Your task to perform on an android device: Search for razer blackwidow on bestbuy.com, select the first entry, add it to the cart, then select checkout. Image 0: 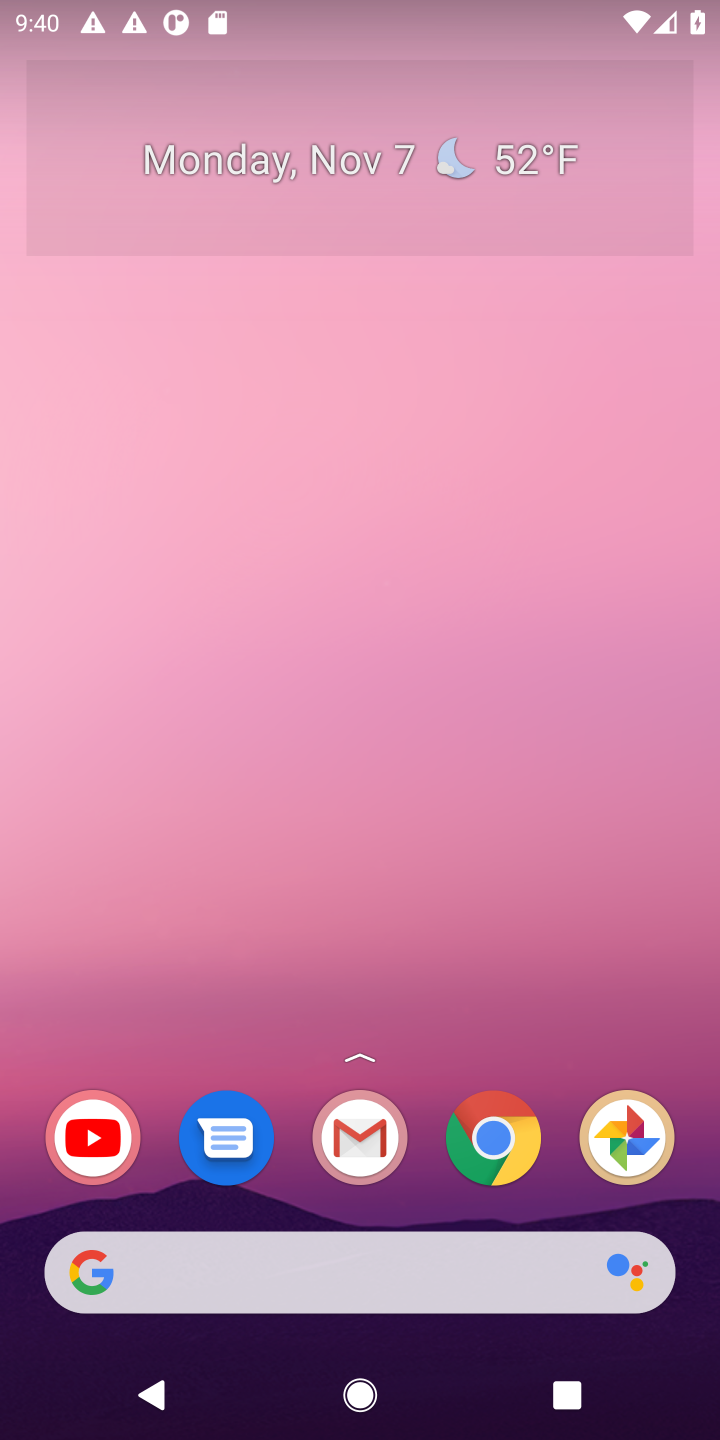
Step 0: click (497, 1139)
Your task to perform on an android device: Search for razer blackwidow on bestbuy.com, select the first entry, add it to the cart, then select checkout. Image 1: 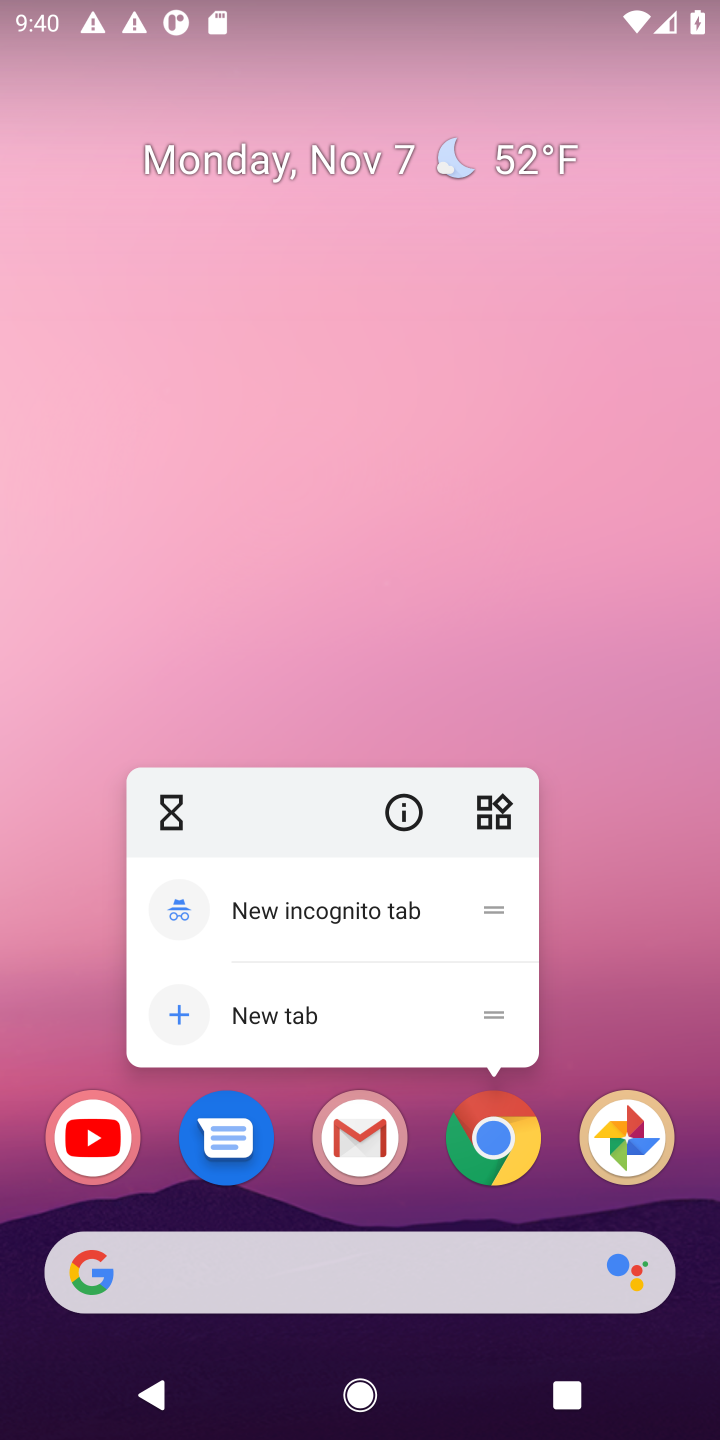
Step 1: click (494, 1127)
Your task to perform on an android device: Search for razer blackwidow on bestbuy.com, select the first entry, add it to the cart, then select checkout. Image 2: 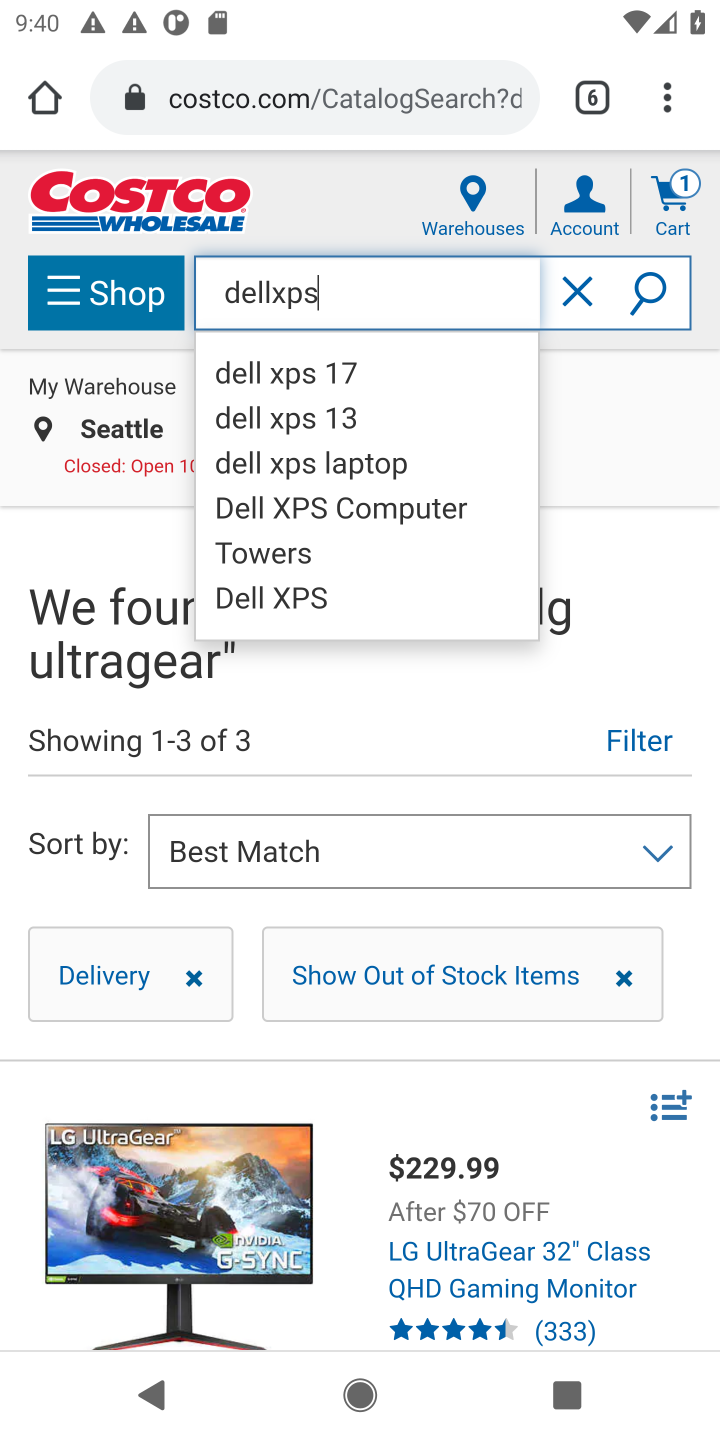
Step 2: click (594, 99)
Your task to perform on an android device: Search for razer blackwidow on bestbuy.com, select the first entry, add it to the cart, then select checkout. Image 3: 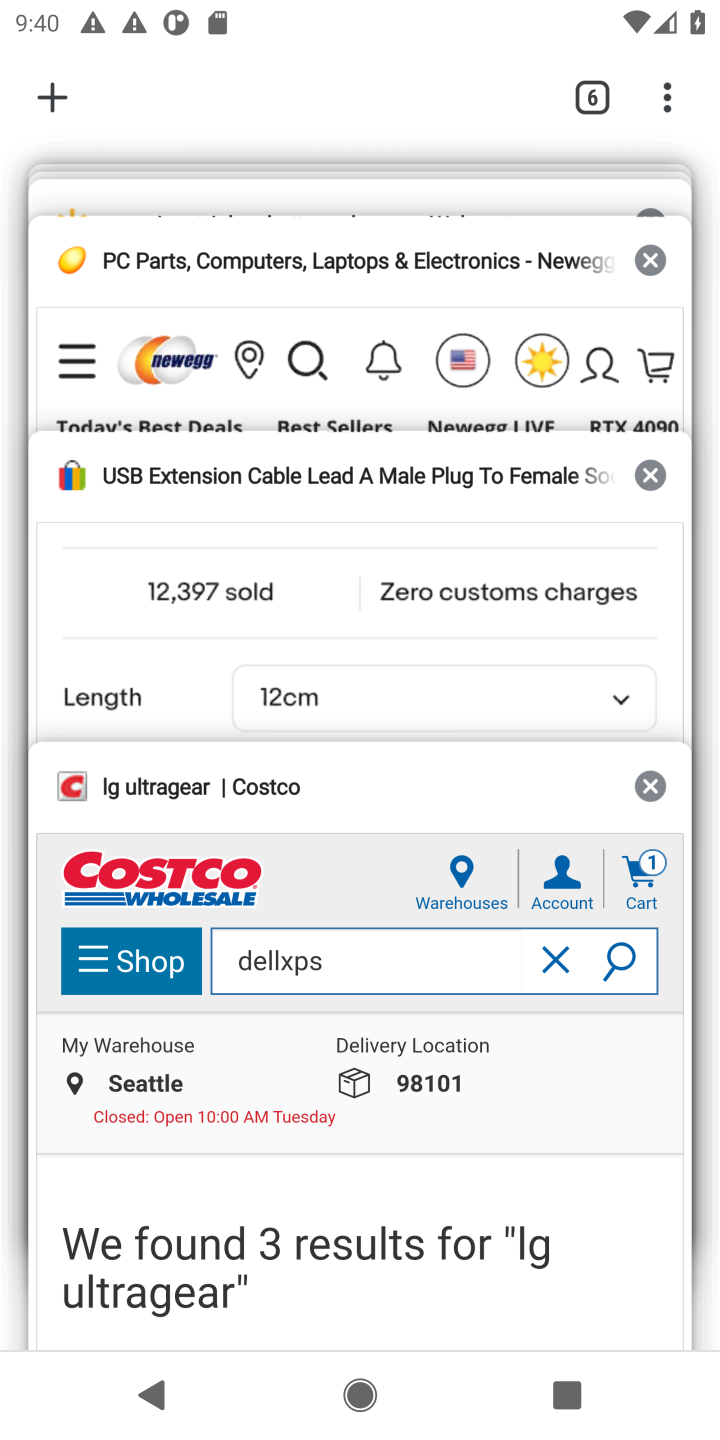
Step 3: click (327, 317)
Your task to perform on an android device: Search for razer blackwidow on bestbuy.com, select the first entry, add it to the cart, then select checkout. Image 4: 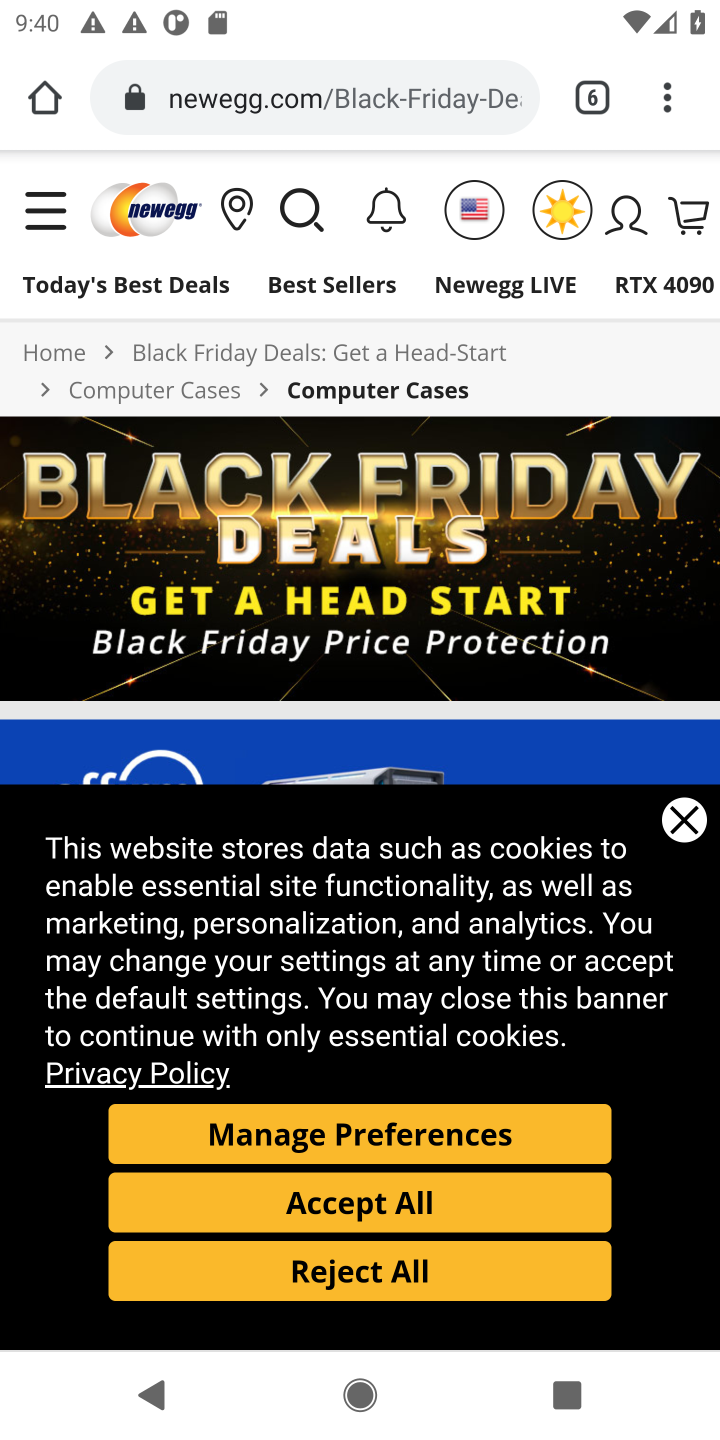
Step 4: click (589, 96)
Your task to perform on an android device: Search for razer blackwidow on bestbuy.com, select the first entry, add it to the cart, then select checkout. Image 5: 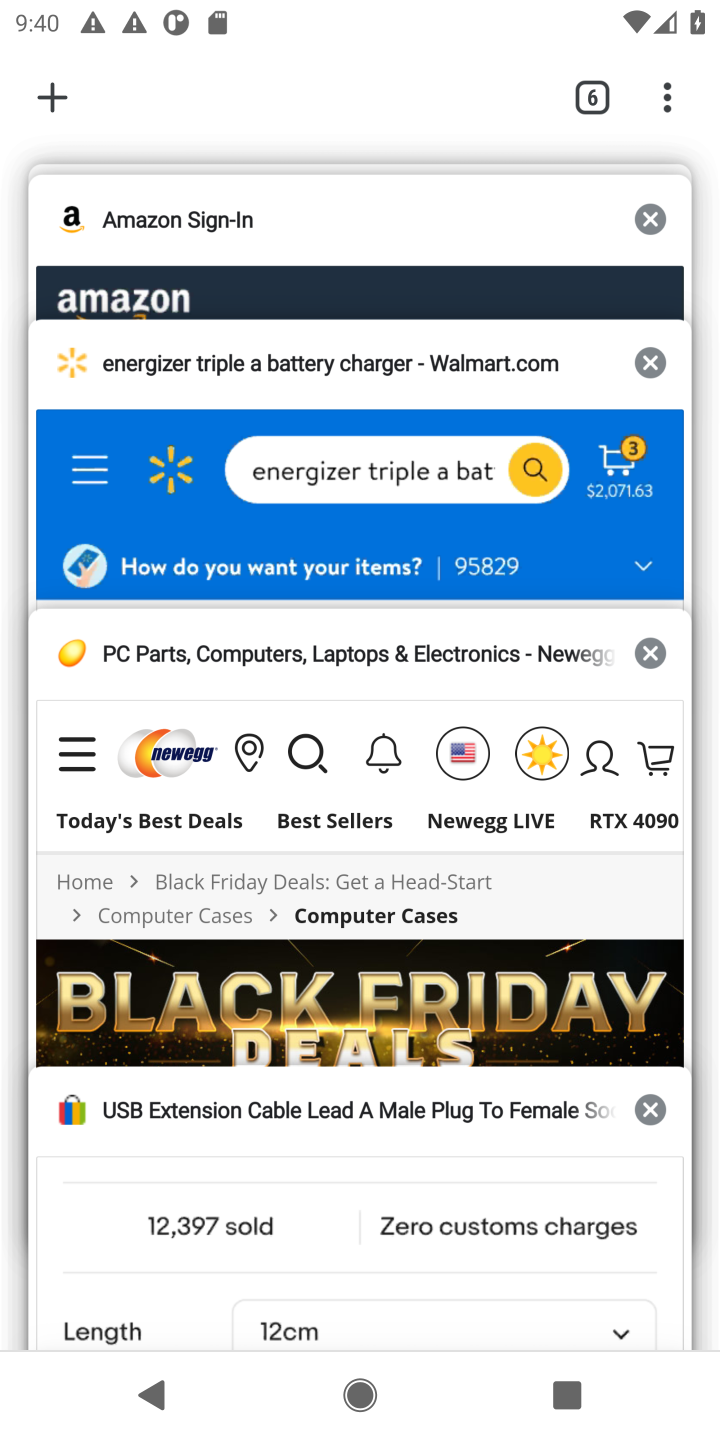
Step 5: drag from (258, 218) to (177, 759)
Your task to perform on an android device: Search for razer blackwidow on bestbuy.com, select the first entry, add it to the cart, then select checkout. Image 6: 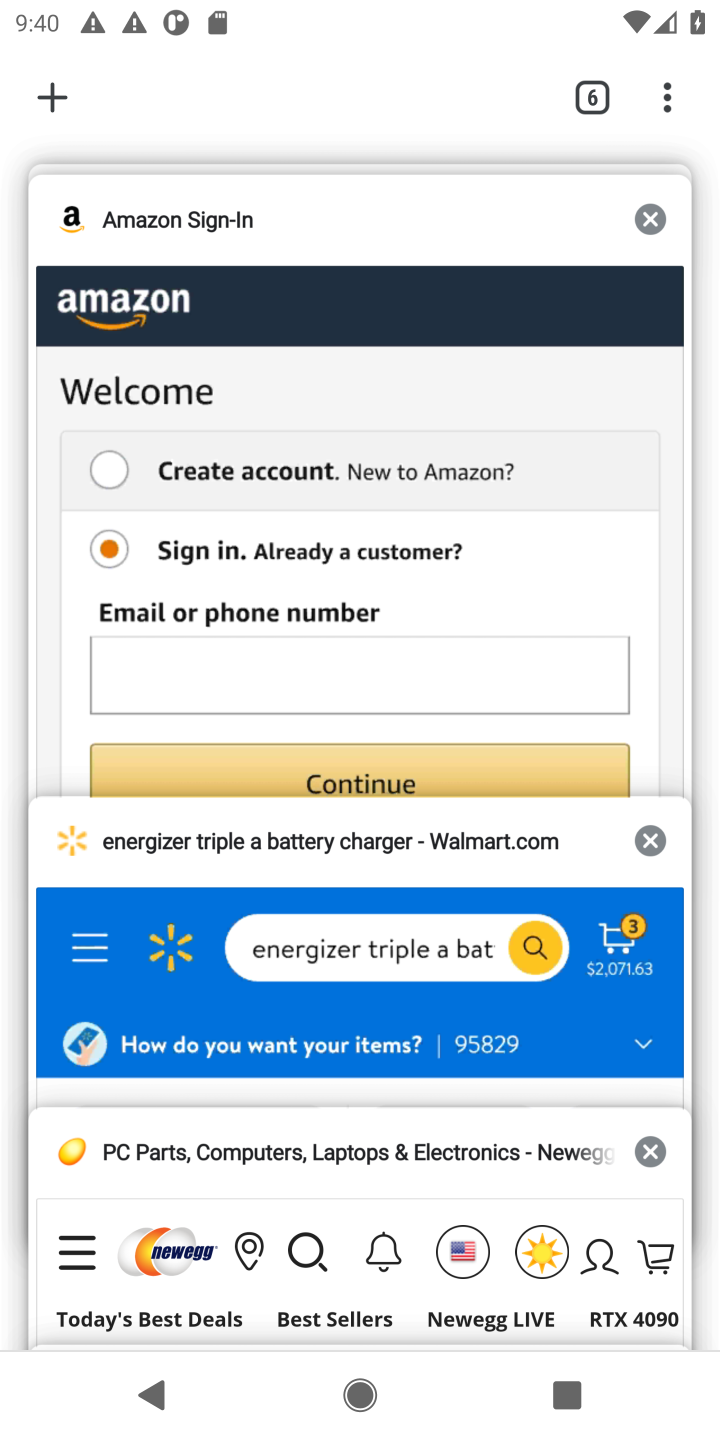
Step 6: drag from (487, 314) to (369, 1035)
Your task to perform on an android device: Search for razer blackwidow on bestbuy.com, select the first entry, add it to the cart, then select checkout. Image 7: 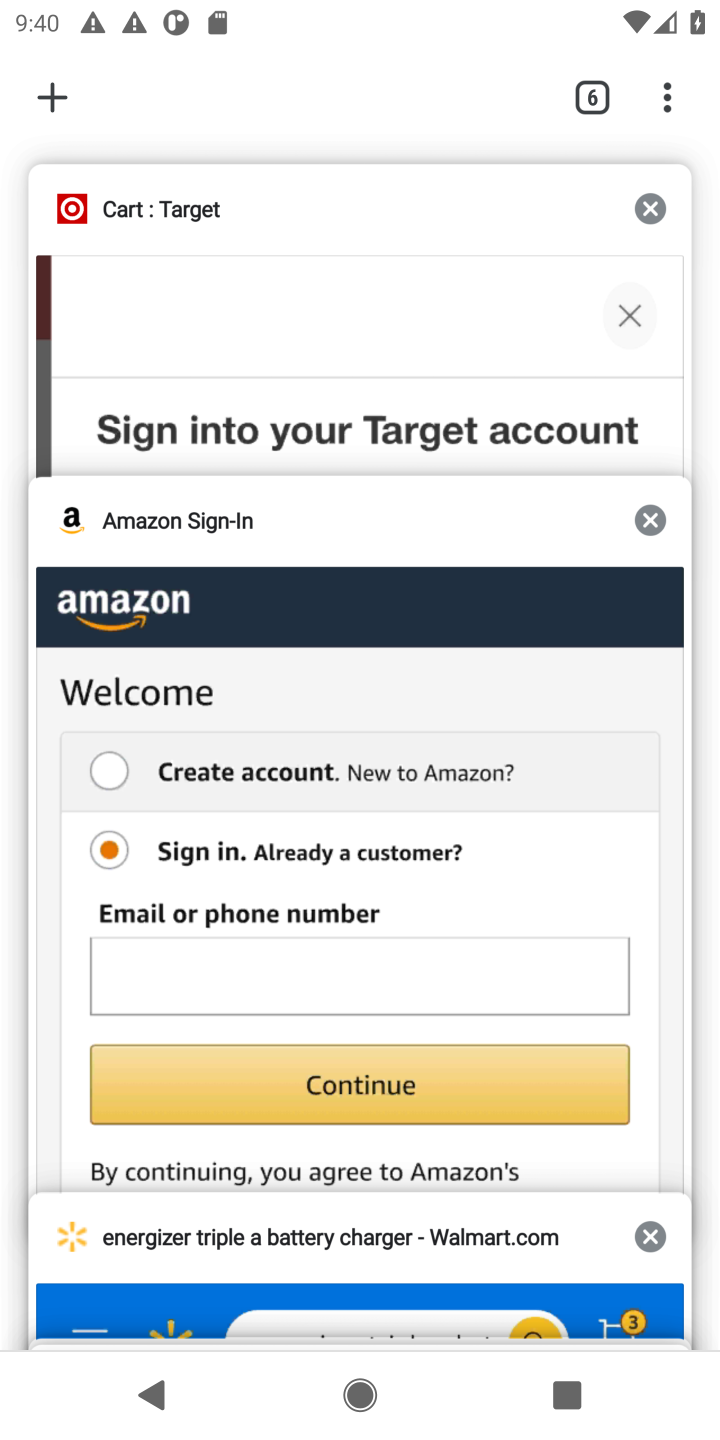
Step 7: drag from (325, 1093) to (712, 100)
Your task to perform on an android device: Search for razer blackwidow on bestbuy.com, select the first entry, add it to the cart, then select checkout. Image 8: 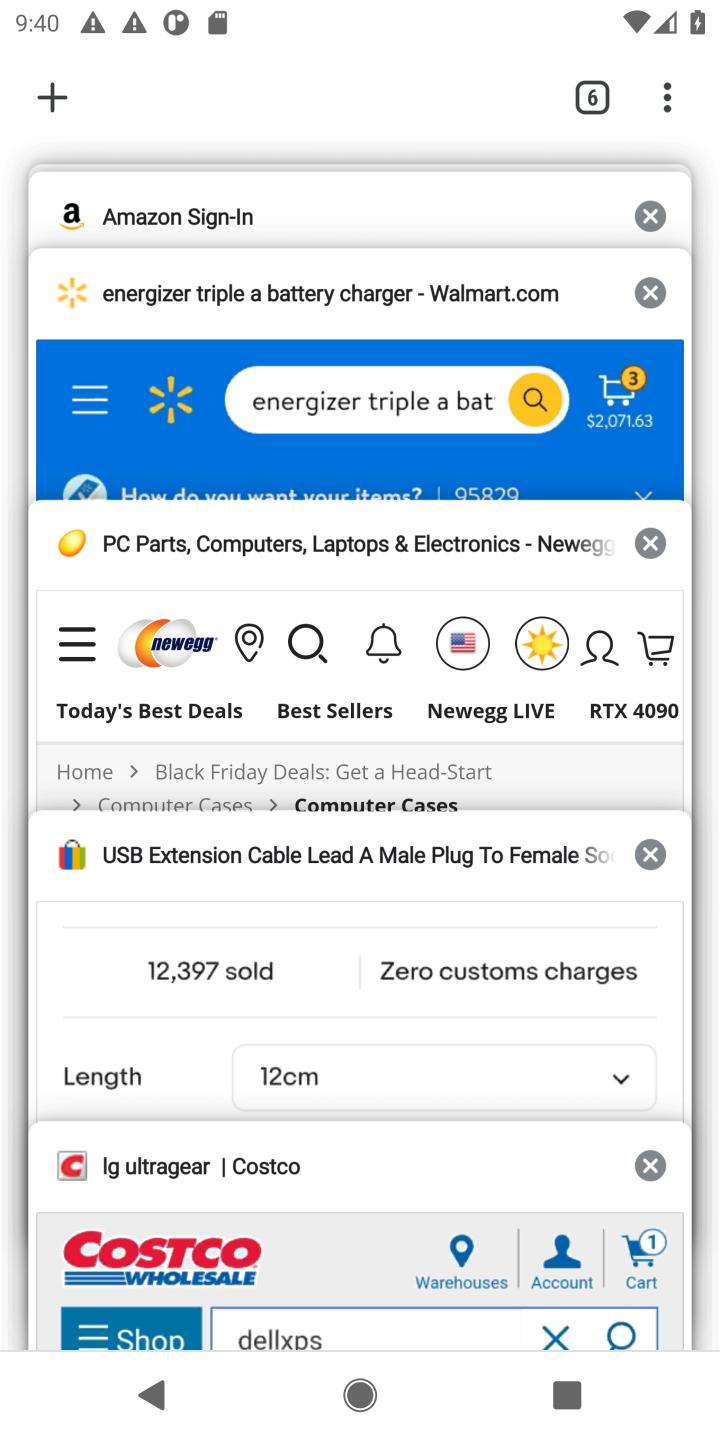
Step 8: drag from (385, 909) to (496, 480)
Your task to perform on an android device: Search for razer blackwidow on bestbuy.com, select the first entry, add it to the cart, then select checkout. Image 9: 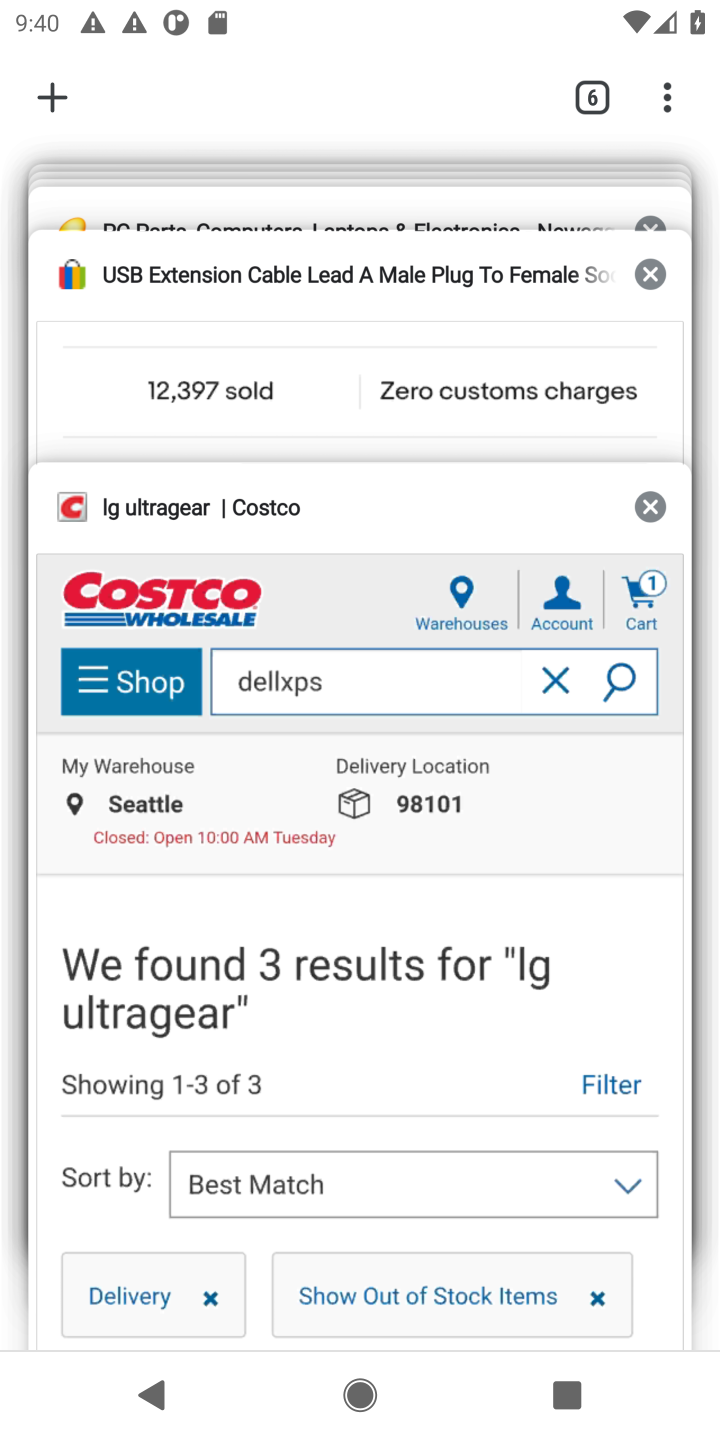
Step 9: drag from (344, 1137) to (503, 568)
Your task to perform on an android device: Search for razer blackwidow on bestbuy.com, select the first entry, add it to the cart, then select checkout. Image 10: 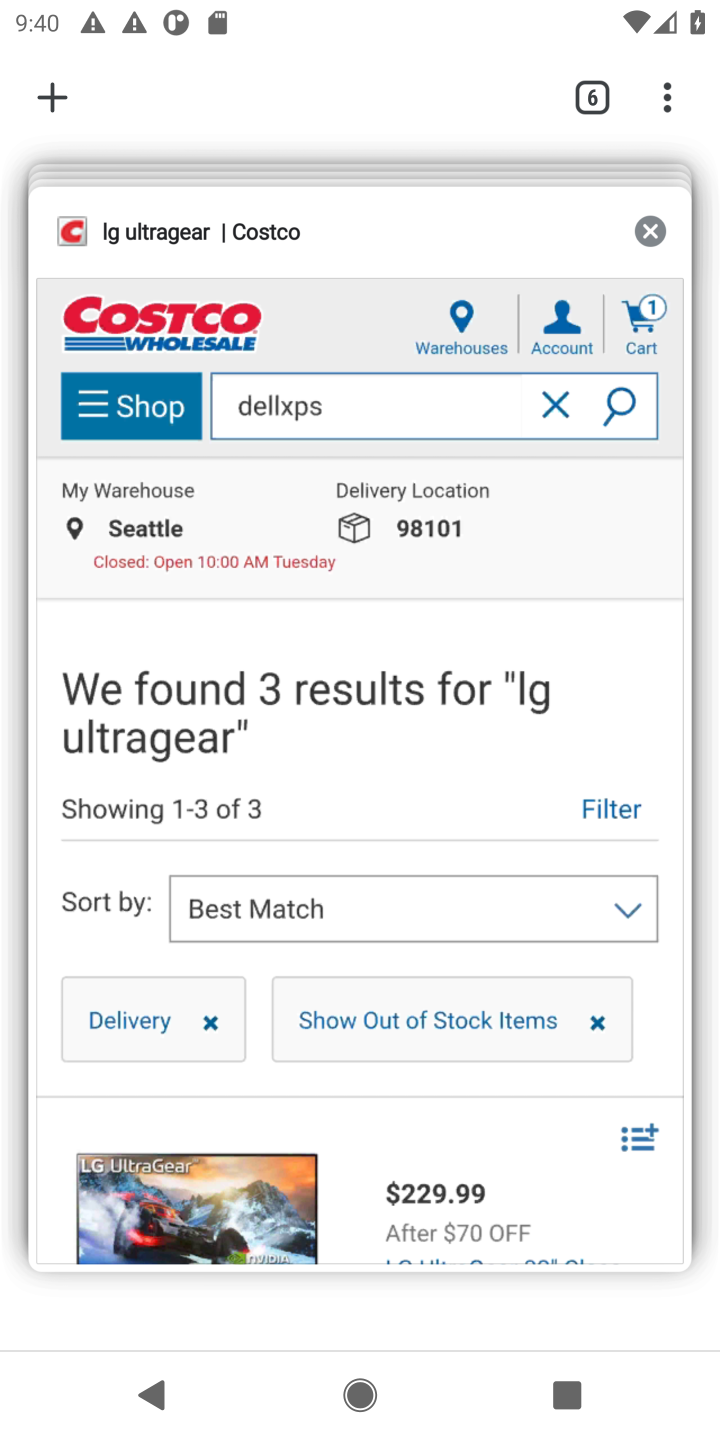
Step 10: click (44, 108)
Your task to perform on an android device: Search for razer blackwidow on bestbuy.com, select the first entry, add it to the cart, then select checkout. Image 11: 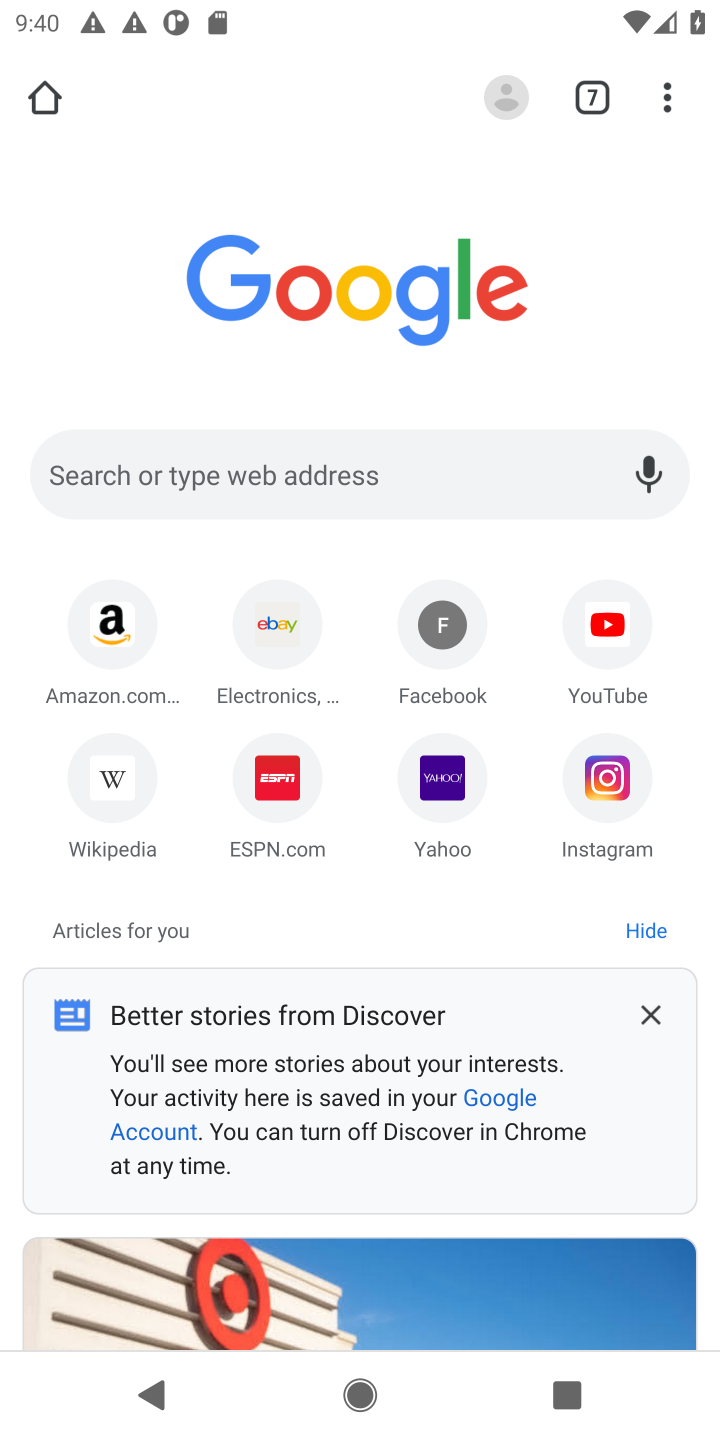
Step 11: click (286, 463)
Your task to perform on an android device: Search for razer blackwidow on bestbuy.com, select the first entry, add it to the cart, then select checkout. Image 12: 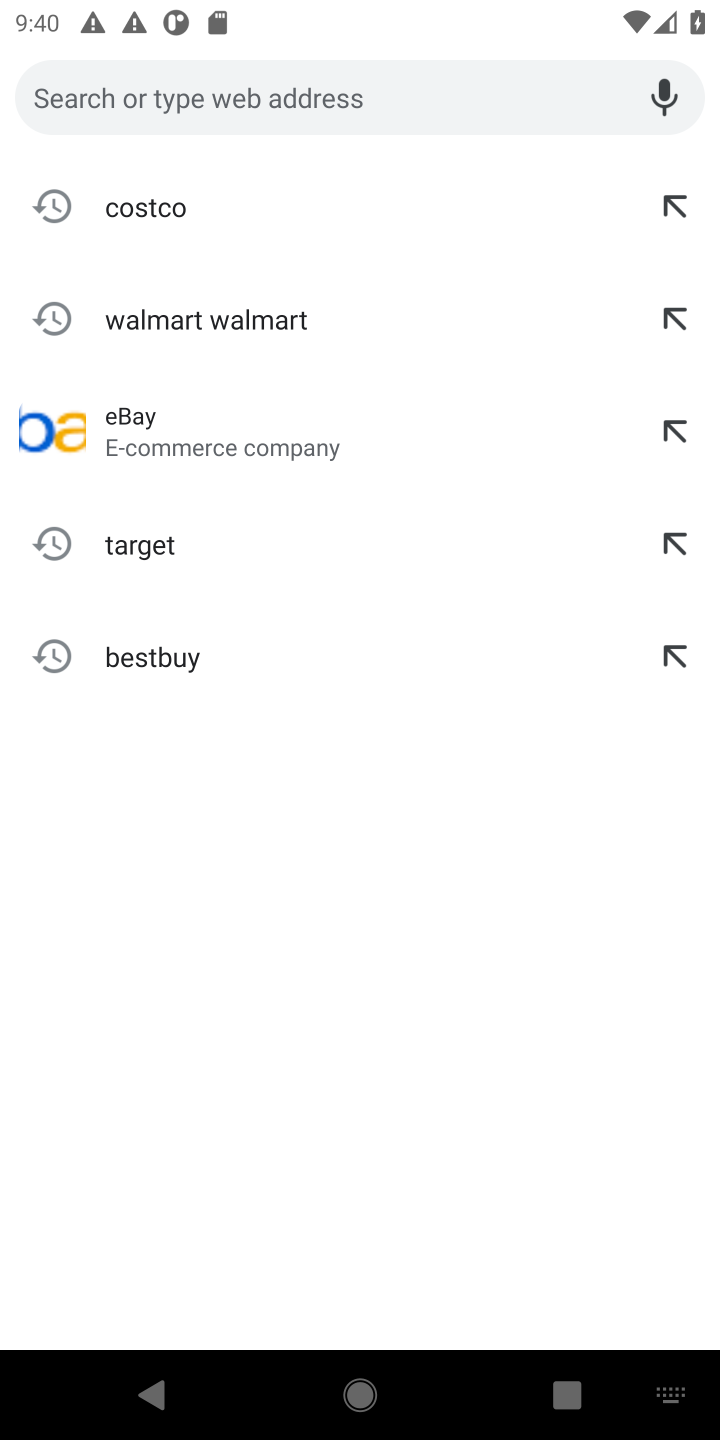
Step 12: type "beatbuy"
Your task to perform on an android device: Search for razer blackwidow on bestbuy.com, select the first entry, add it to the cart, then select checkout. Image 13: 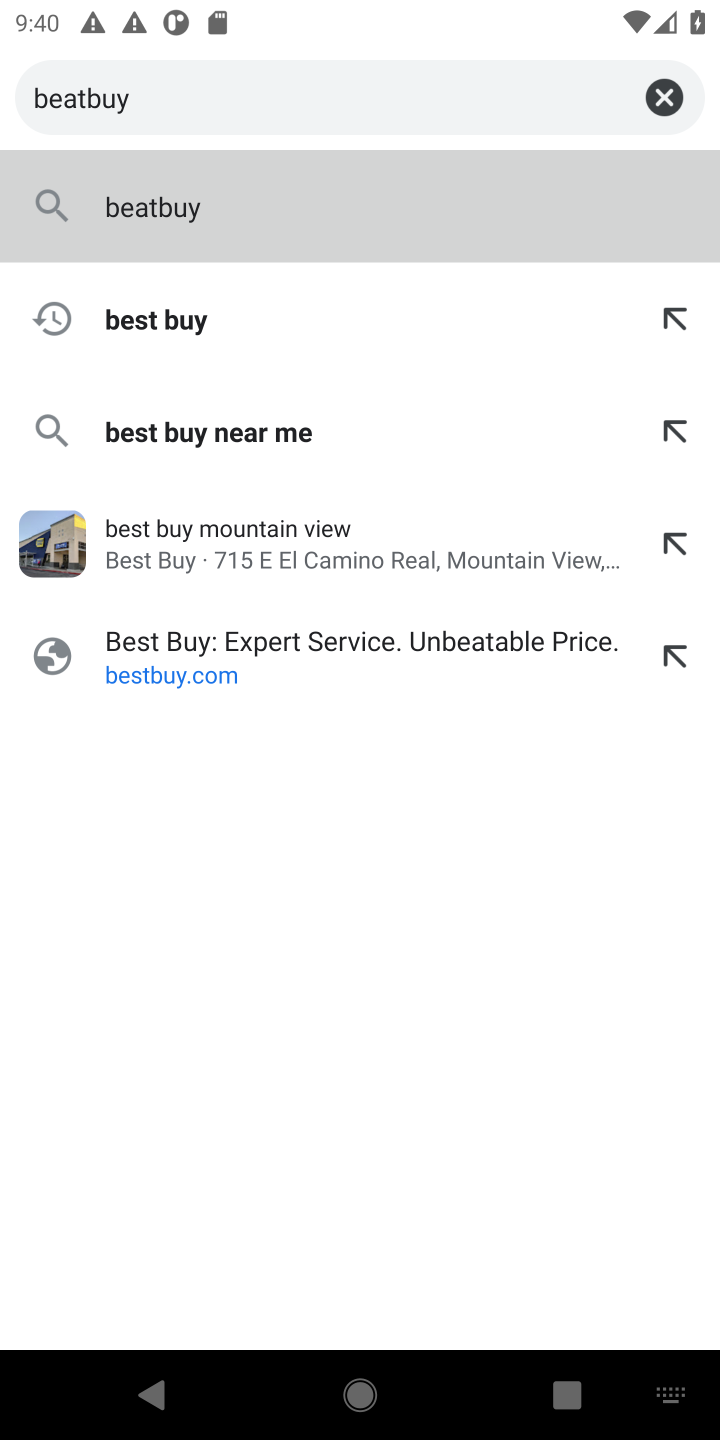
Step 13: click (176, 189)
Your task to perform on an android device: Search for razer blackwidow on bestbuy.com, select the first entry, add it to the cart, then select checkout. Image 14: 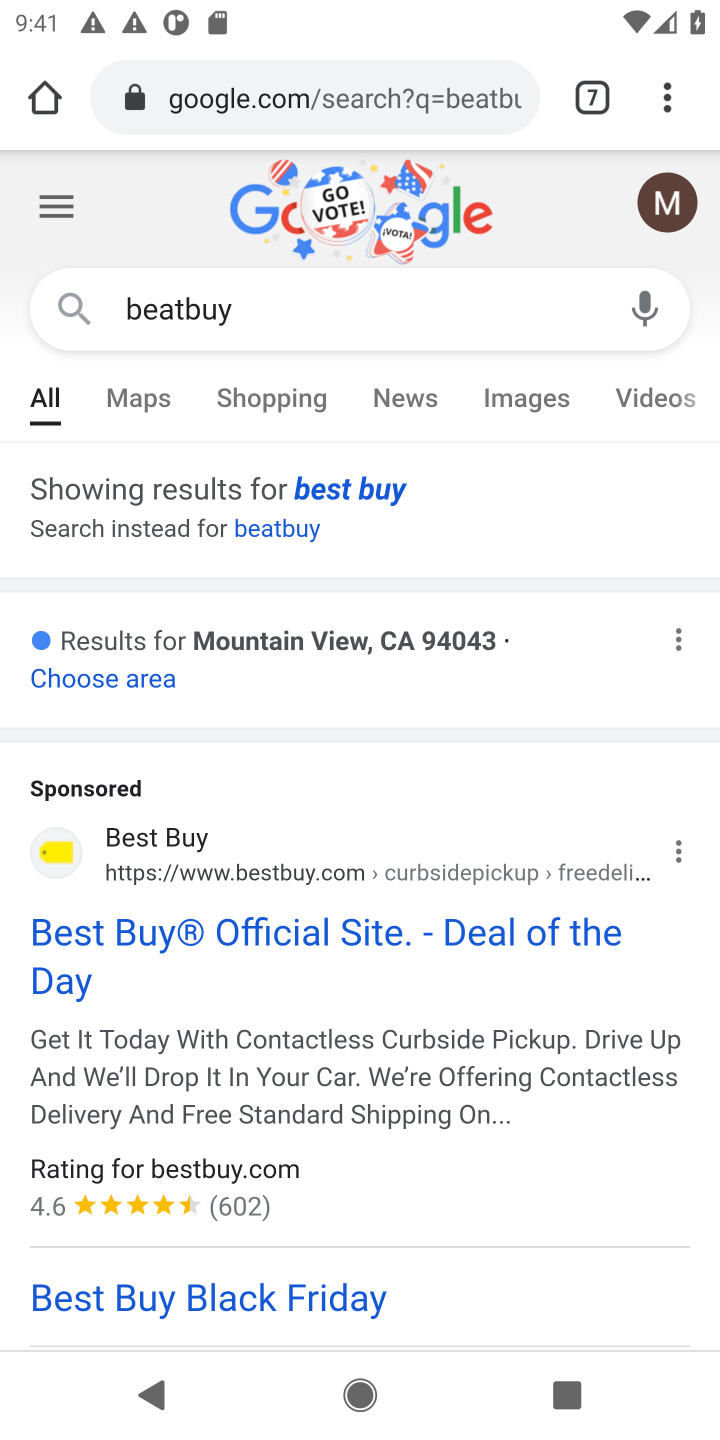
Step 14: drag from (339, 1244) to (561, 521)
Your task to perform on an android device: Search for razer blackwidow on bestbuy.com, select the first entry, add it to the cart, then select checkout. Image 15: 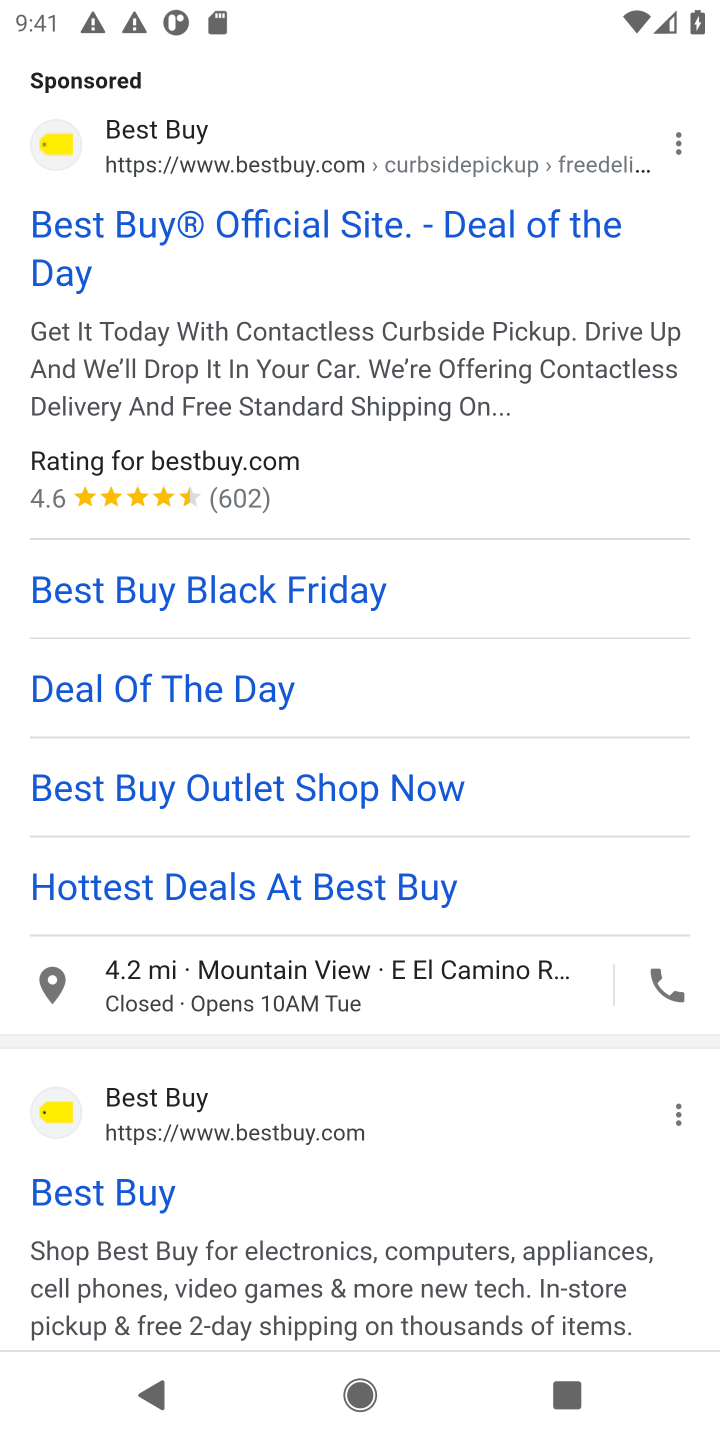
Step 15: drag from (443, 995) to (535, 441)
Your task to perform on an android device: Search for razer blackwidow on bestbuy.com, select the first entry, add it to the cart, then select checkout. Image 16: 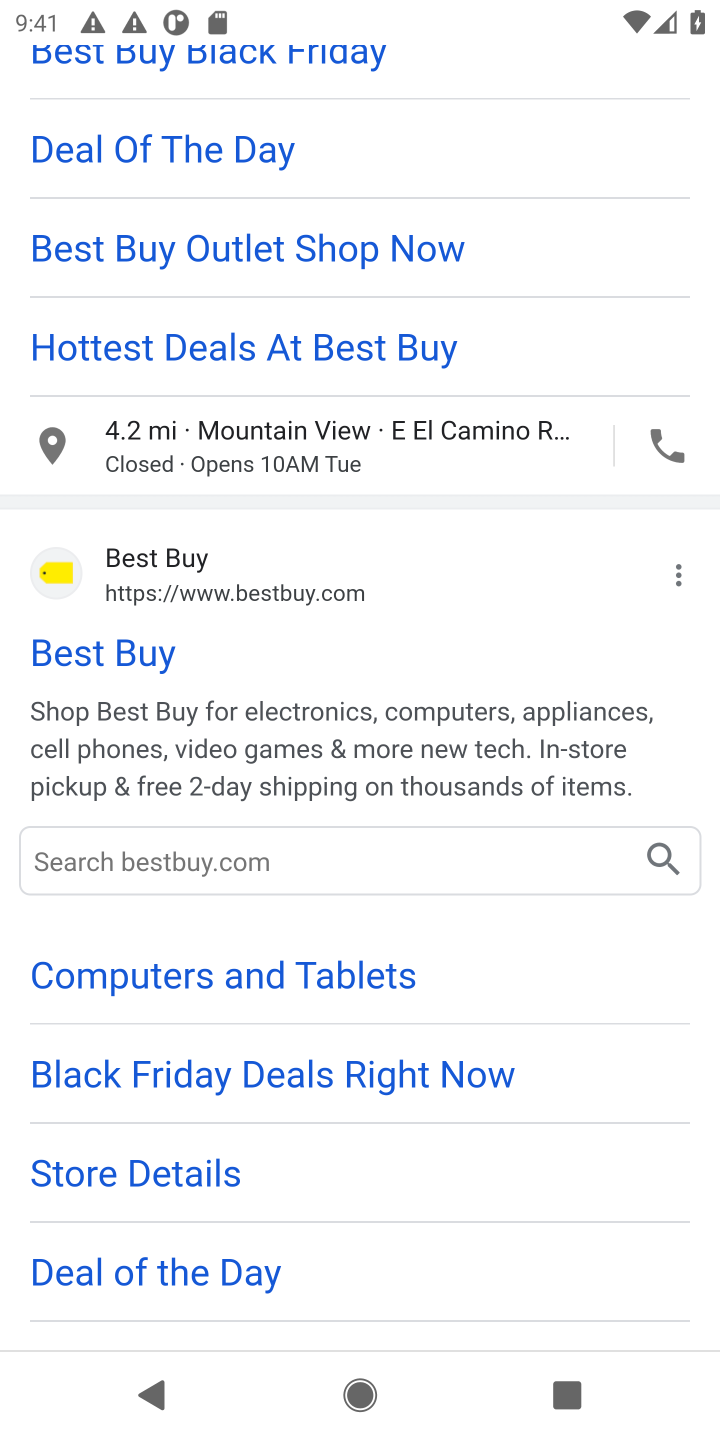
Step 16: click (134, 853)
Your task to perform on an android device: Search for razer blackwidow on bestbuy.com, select the first entry, add it to the cart, then select checkout. Image 17: 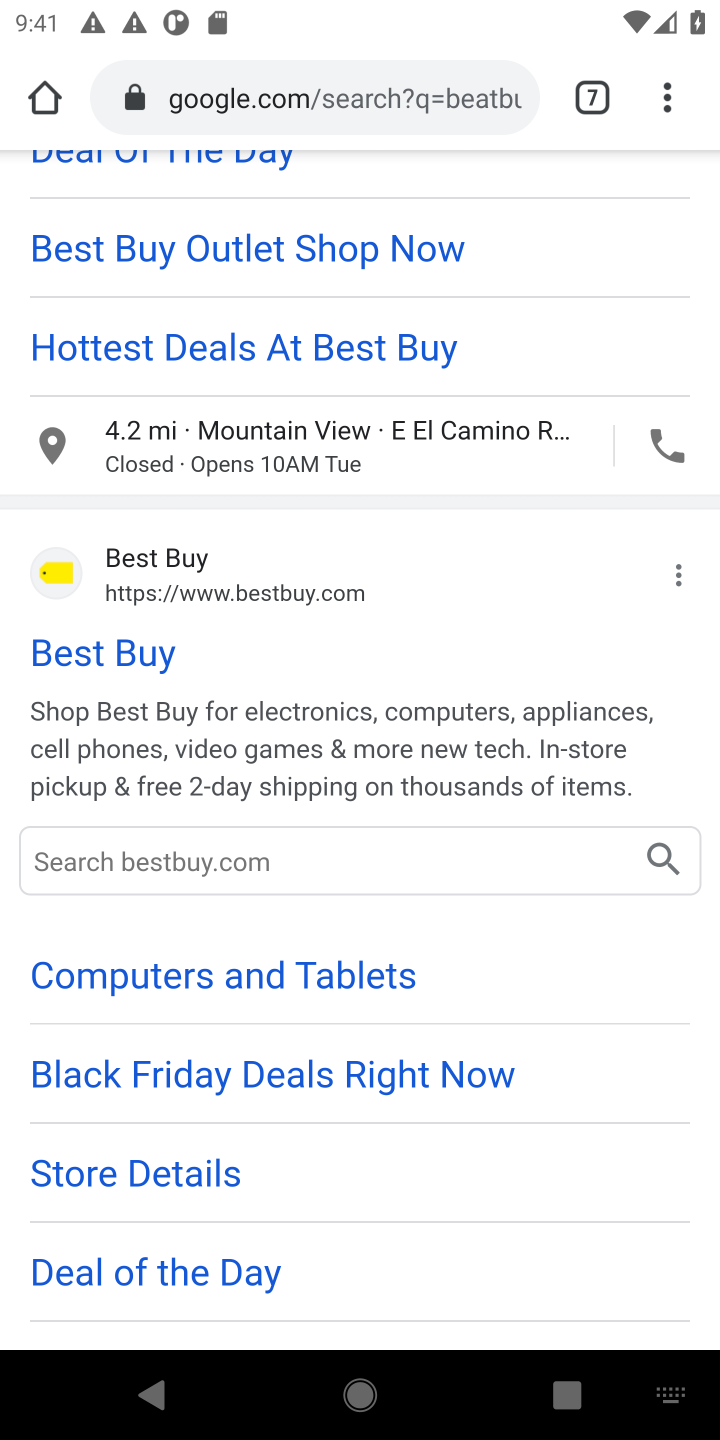
Step 17: type "razer blackwidow "
Your task to perform on an android device: Search for razer blackwidow on bestbuy.com, select the first entry, add it to the cart, then select checkout. Image 18: 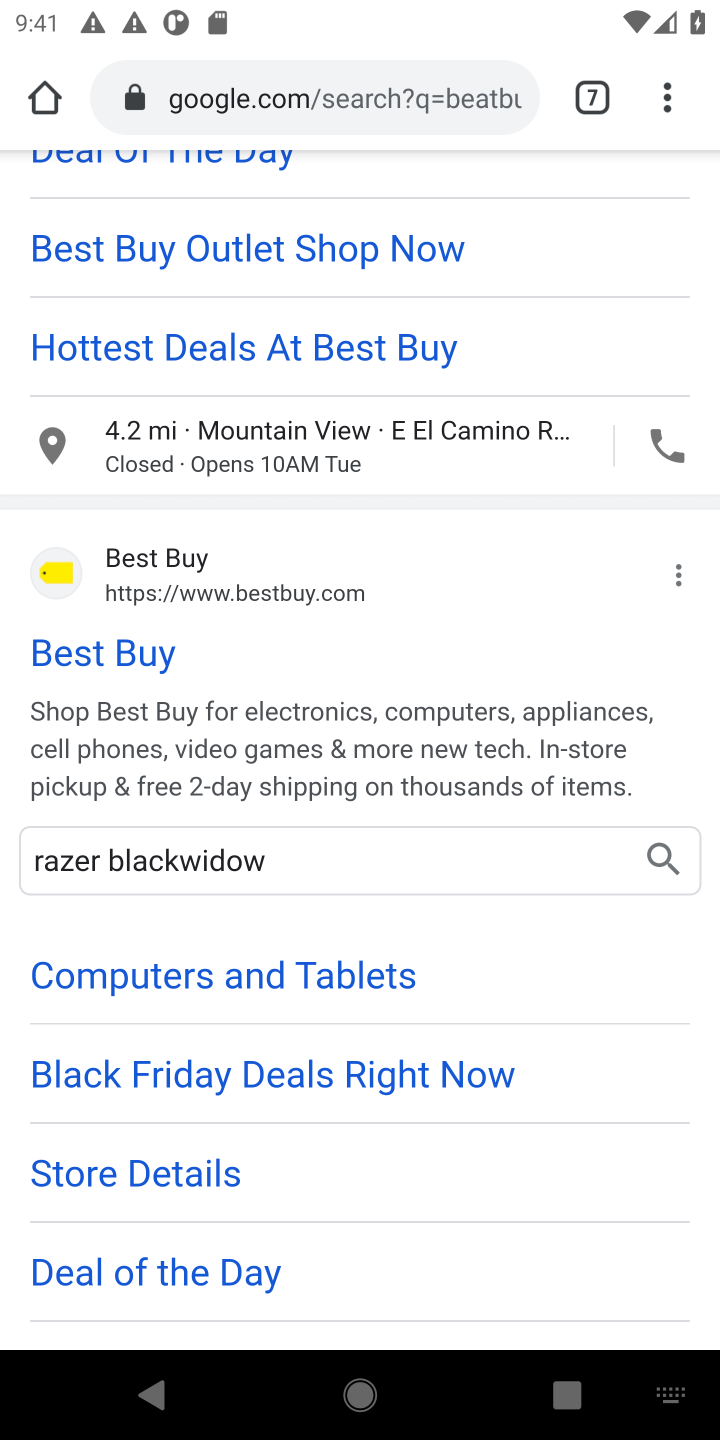
Step 18: click (673, 852)
Your task to perform on an android device: Search for razer blackwidow on bestbuy.com, select the first entry, add it to the cart, then select checkout. Image 19: 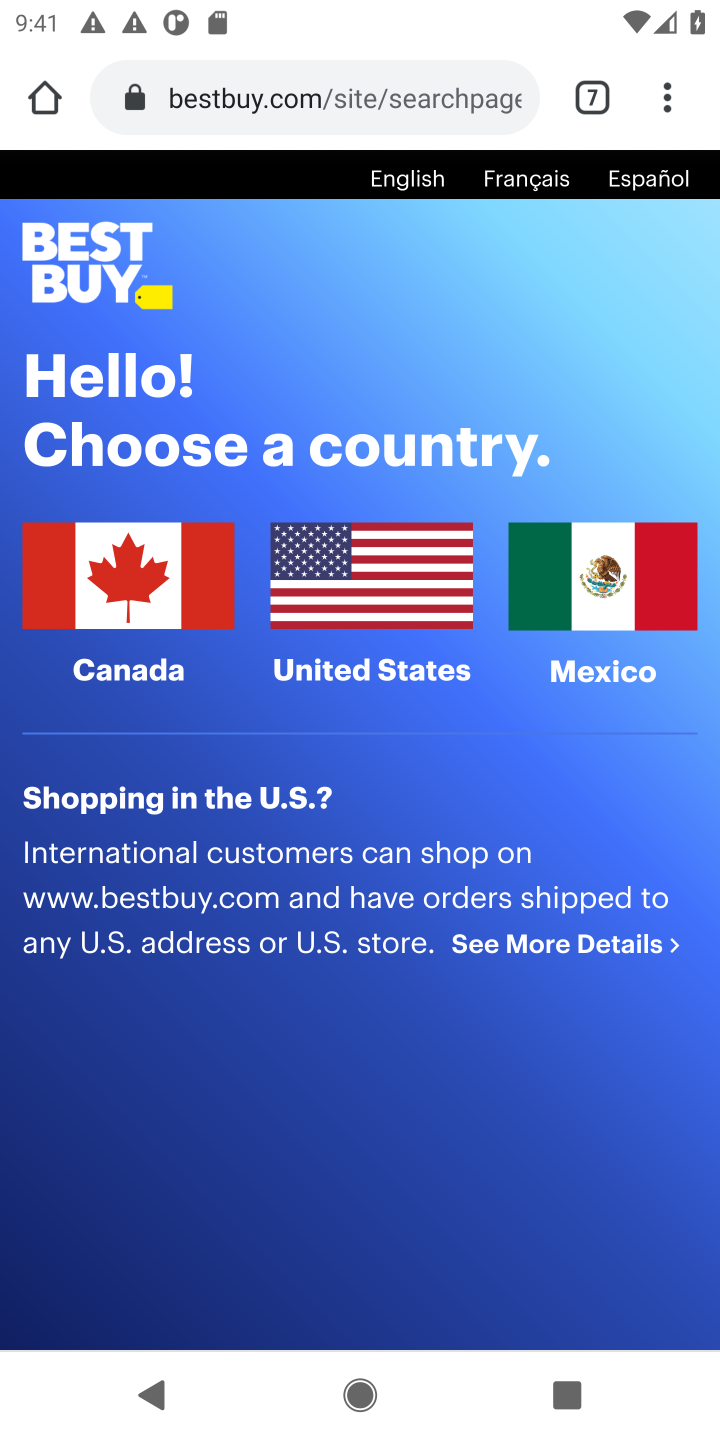
Step 19: click (409, 547)
Your task to perform on an android device: Search for razer blackwidow on bestbuy.com, select the first entry, add it to the cart, then select checkout. Image 20: 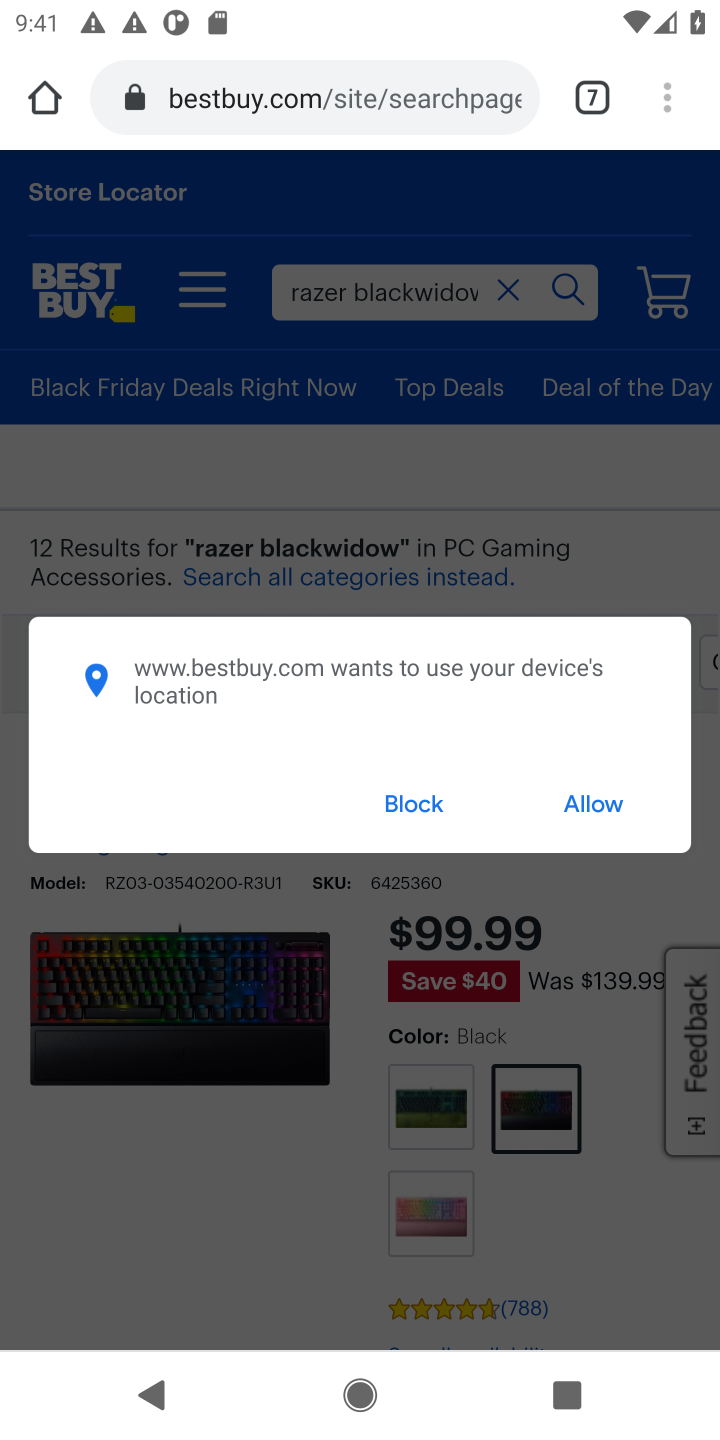
Step 20: click (420, 804)
Your task to perform on an android device: Search for razer blackwidow on bestbuy.com, select the first entry, add it to the cart, then select checkout. Image 21: 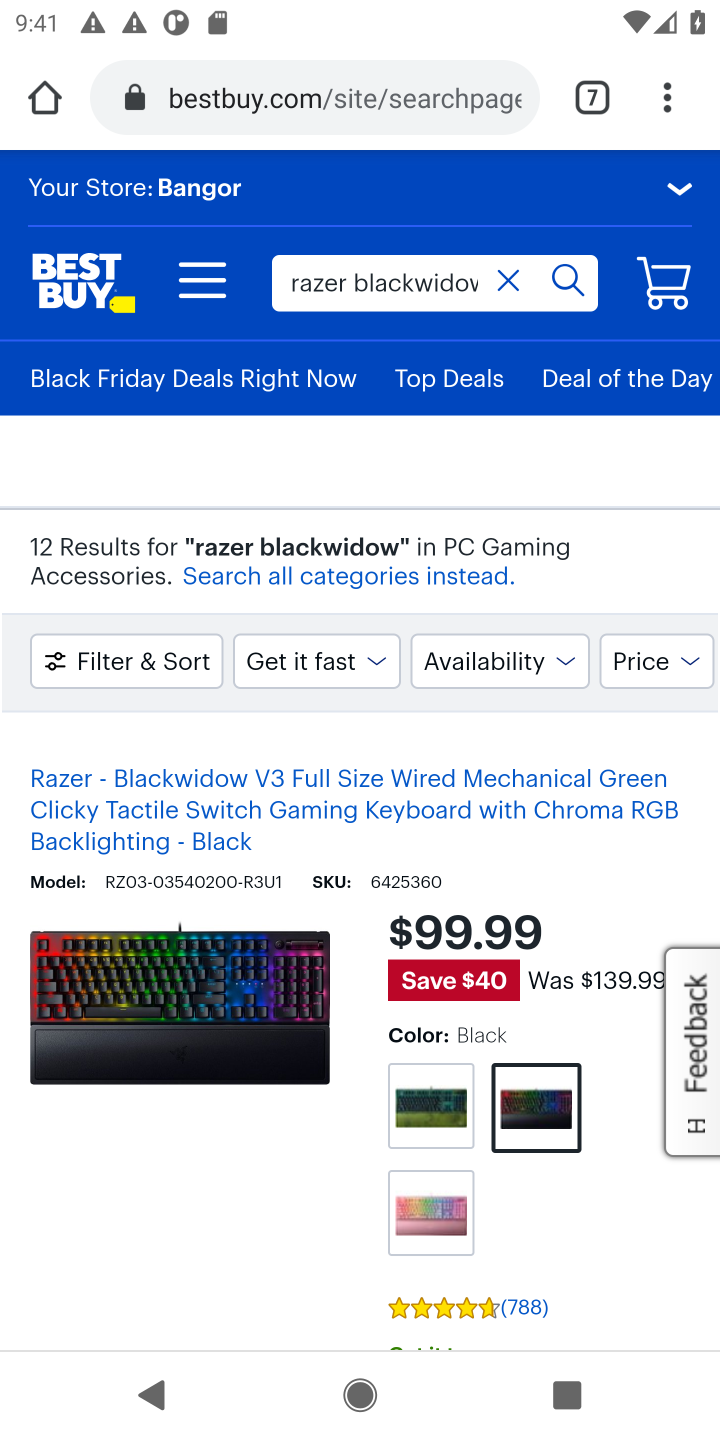
Step 21: drag from (315, 1198) to (398, 425)
Your task to perform on an android device: Search for razer blackwidow on bestbuy.com, select the first entry, add it to the cart, then select checkout. Image 22: 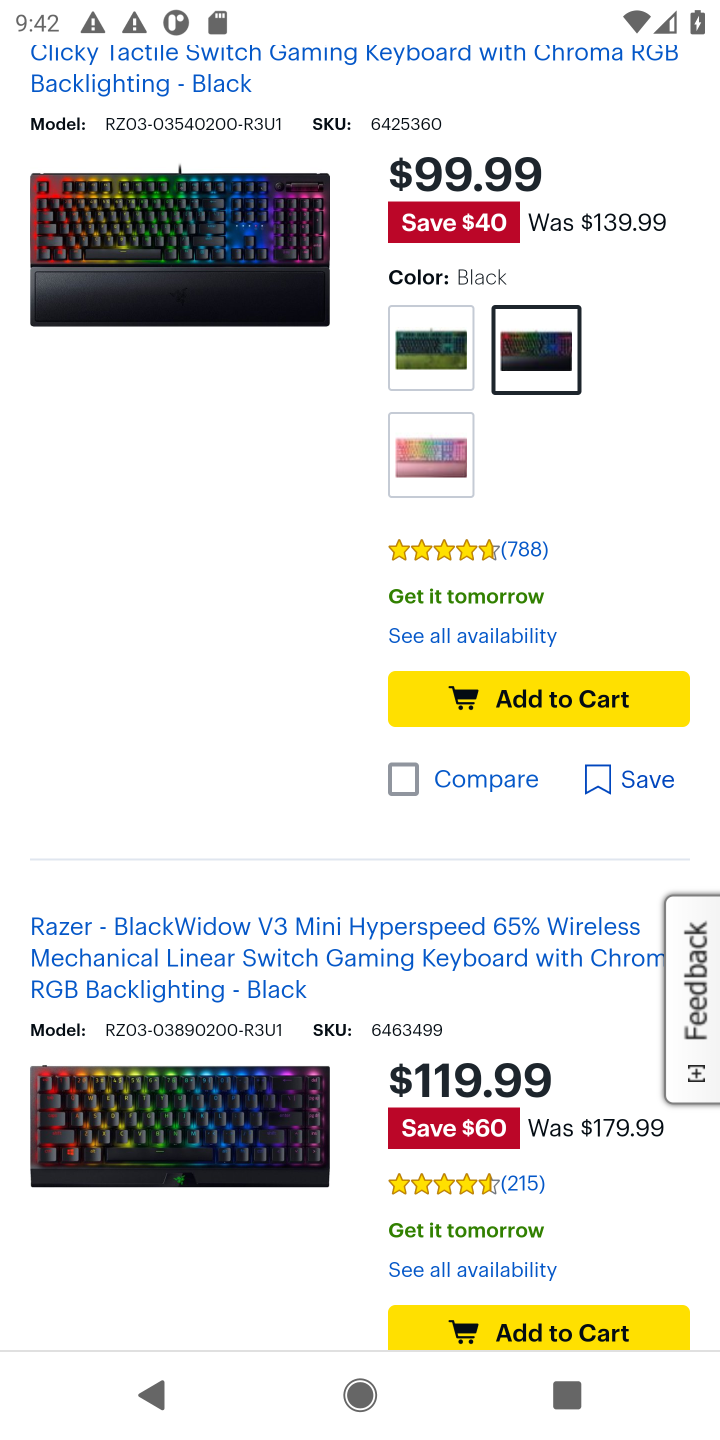
Step 22: click (541, 701)
Your task to perform on an android device: Search for razer blackwidow on bestbuy.com, select the first entry, add it to the cart, then select checkout. Image 23: 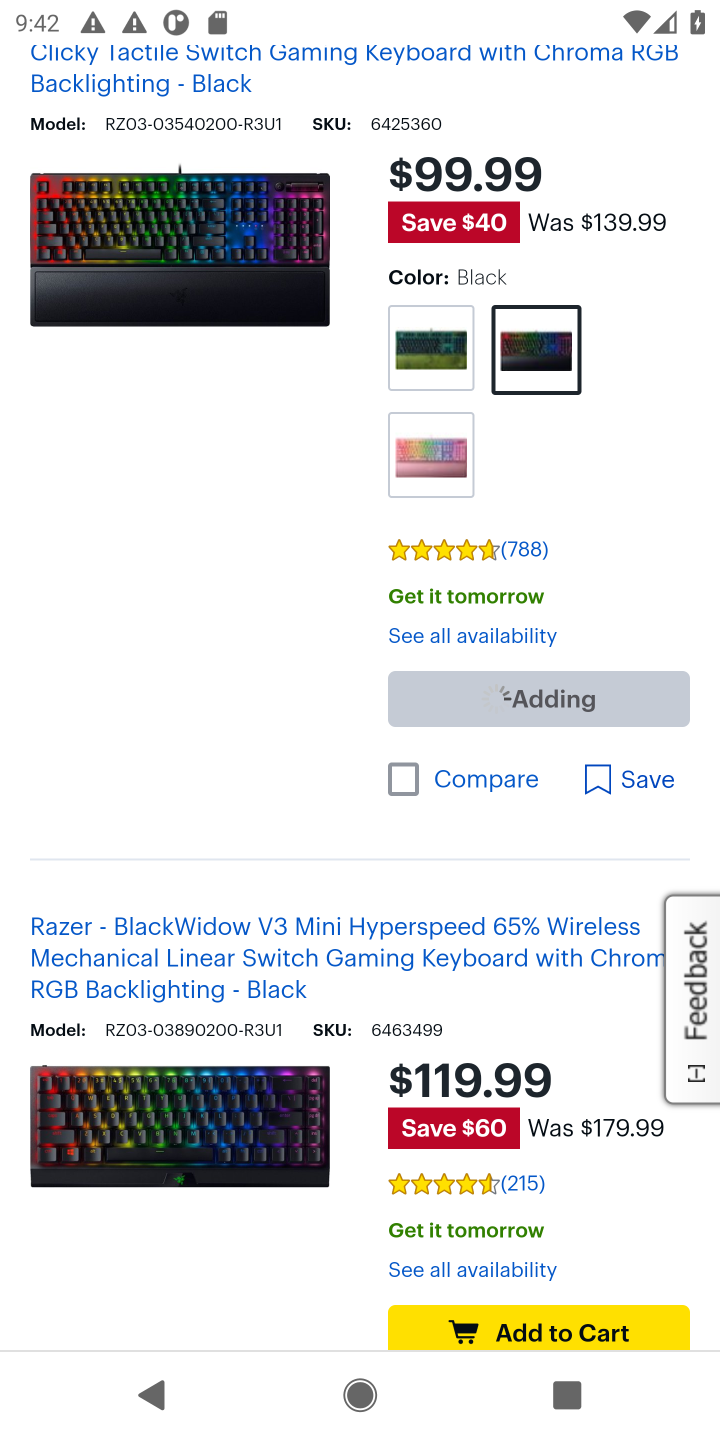
Step 23: task complete